Your task to perform on an android device: choose inbox layout in the gmail app Image 0: 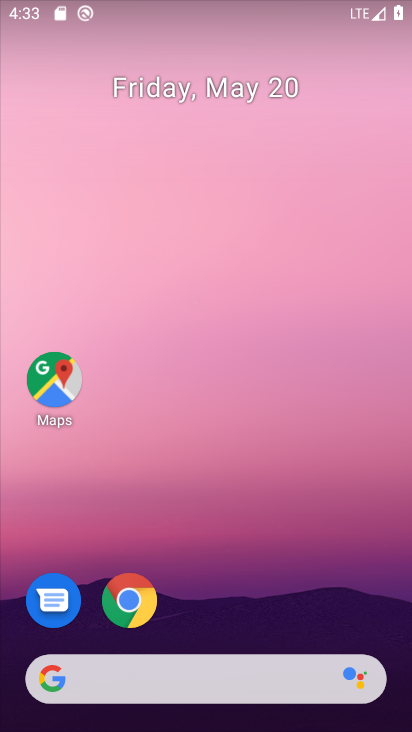
Step 0: drag from (317, 619) to (182, 20)
Your task to perform on an android device: choose inbox layout in the gmail app Image 1: 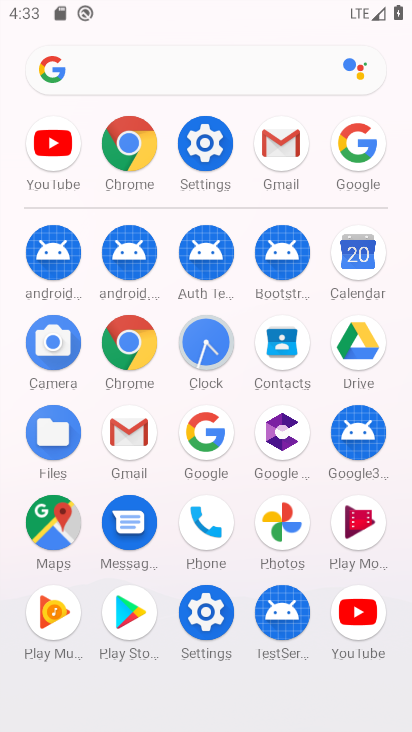
Step 1: click (129, 431)
Your task to perform on an android device: choose inbox layout in the gmail app Image 2: 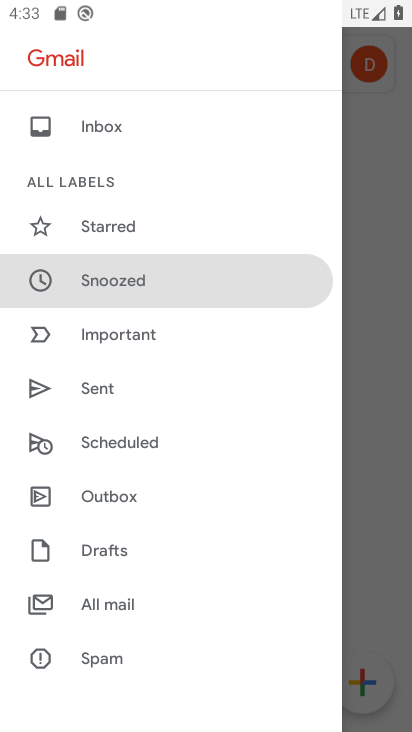
Step 2: drag from (196, 226) to (133, 70)
Your task to perform on an android device: choose inbox layout in the gmail app Image 3: 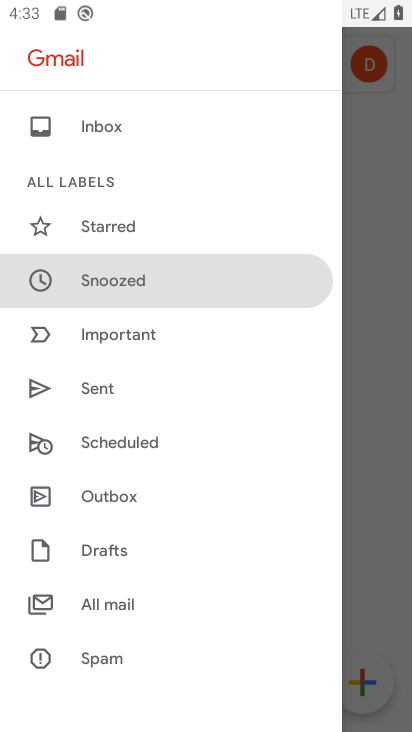
Step 3: drag from (122, 621) to (123, 166)
Your task to perform on an android device: choose inbox layout in the gmail app Image 4: 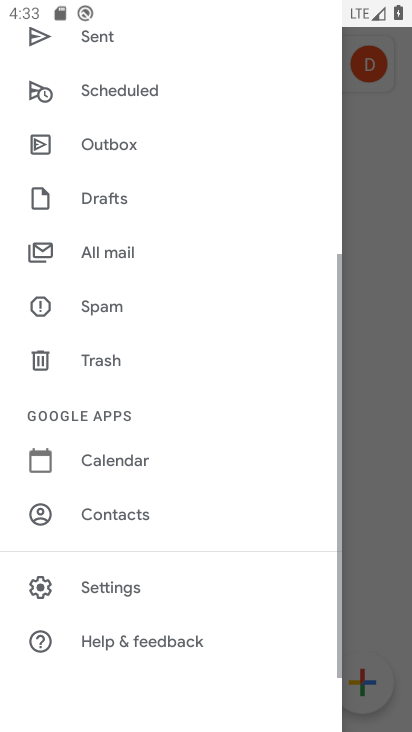
Step 4: click (146, 591)
Your task to perform on an android device: choose inbox layout in the gmail app Image 5: 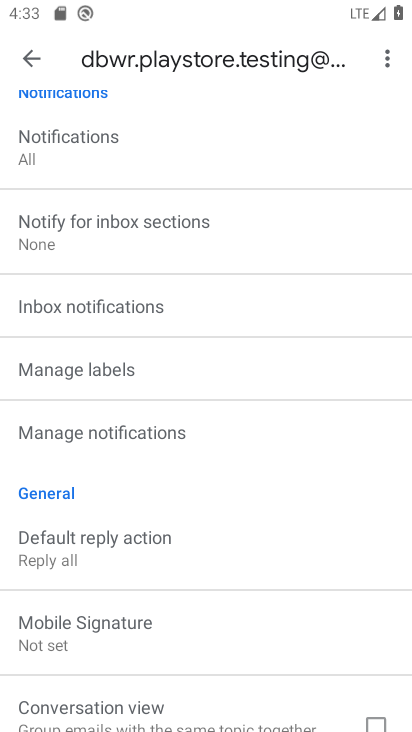
Step 5: drag from (254, 511) to (226, 121)
Your task to perform on an android device: choose inbox layout in the gmail app Image 6: 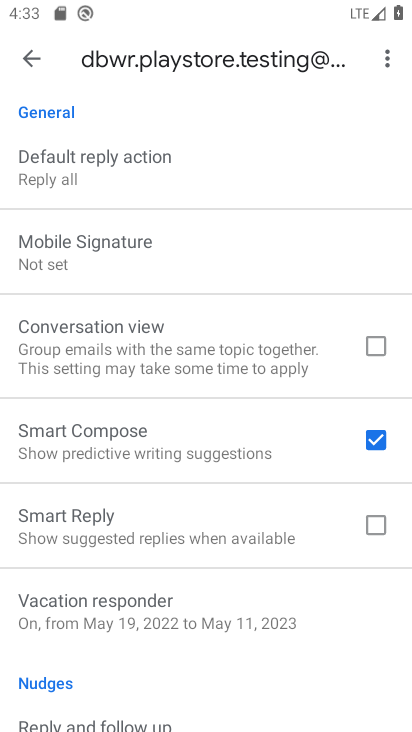
Step 6: drag from (205, 587) to (181, 178)
Your task to perform on an android device: choose inbox layout in the gmail app Image 7: 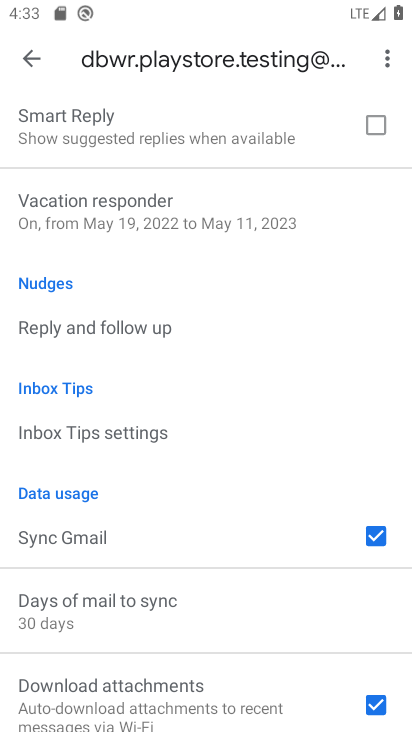
Step 7: drag from (221, 155) to (226, 731)
Your task to perform on an android device: choose inbox layout in the gmail app Image 8: 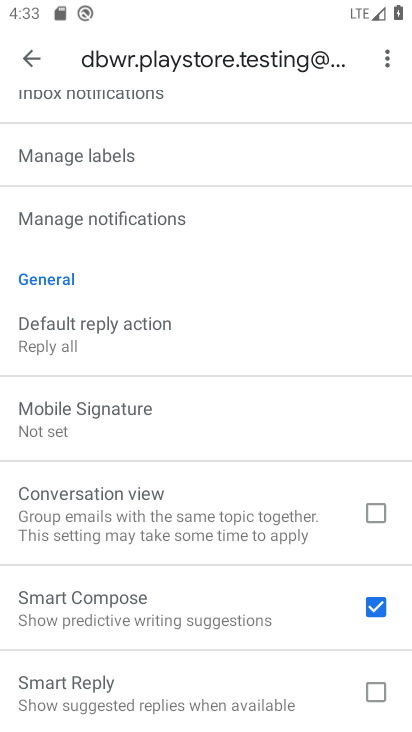
Step 8: drag from (211, 123) to (218, 589)
Your task to perform on an android device: choose inbox layout in the gmail app Image 9: 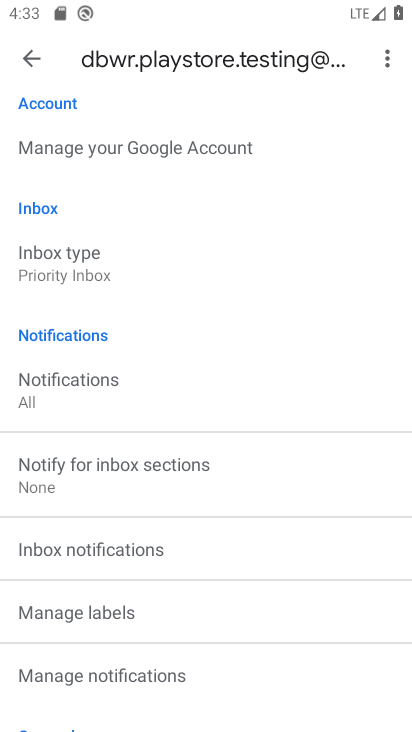
Step 9: click (93, 276)
Your task to perform on an android device: choose inbox layout in the gmail app Image 10: 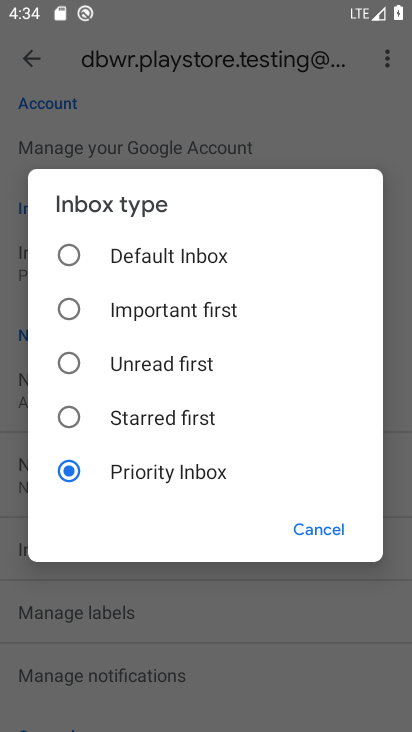
Step 10: task complete